Your task to perform on an android device: manage bookmarks in the chrome app Image 0: 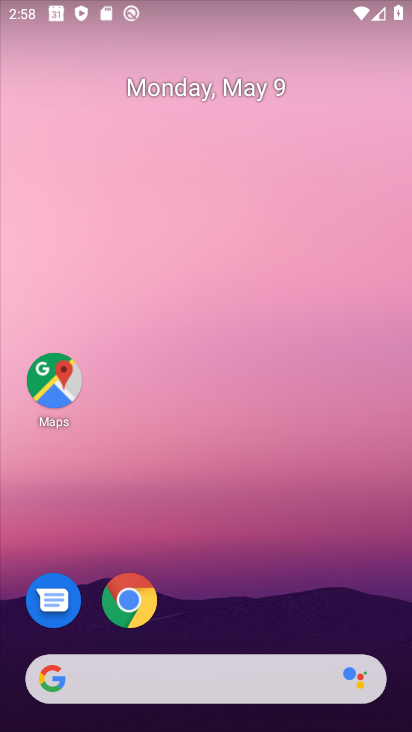
Step 0: drag from (201, 728) to (173, 114)
Your task to perform on an android device: manage bookmarks in the chrome app Image 1: 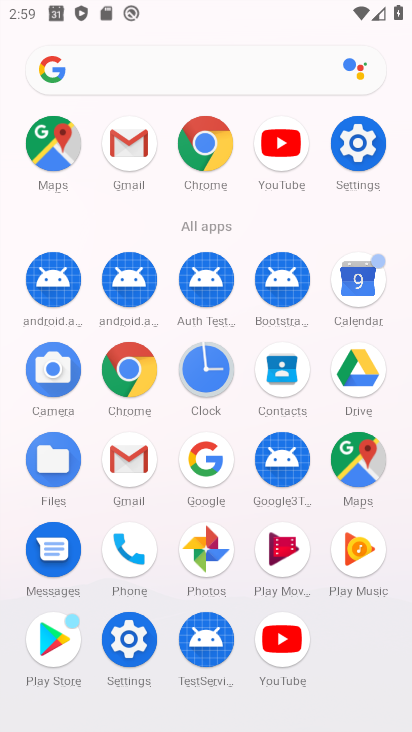
Step 1: click (129, 367)
Your task to perform on an android device: manage bookmarks in the chrome app Image 2: 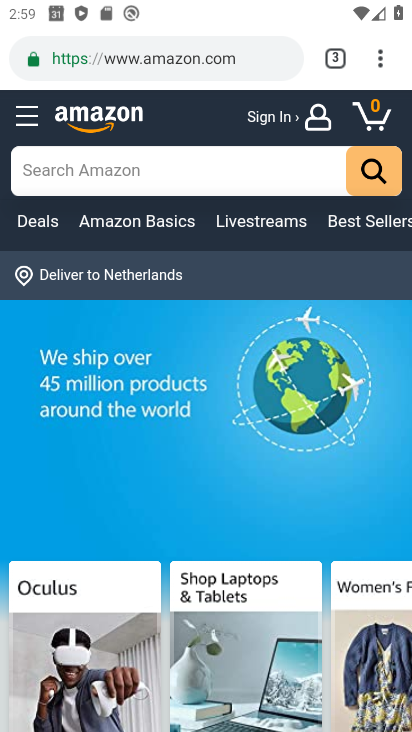
Step 2: drag from (382, 67) to (173, 285)
Your task to perform on an android device: manage bookmarks in the chrome app Image 3: 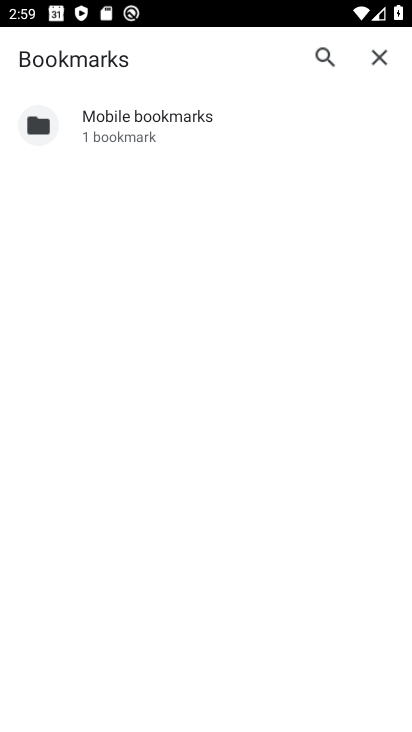
Step 3: click (141, 109)
Your task to perform on an android device: manage bookmarks in the chrome app Image 4: 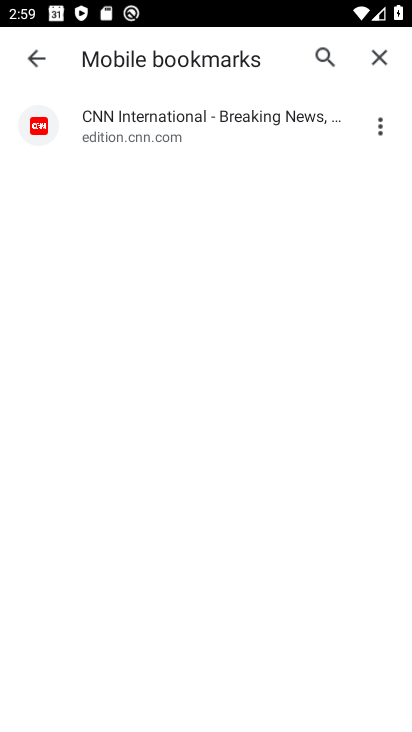
Step 4: click (380, 128)
Your task to perform on an android device: manage bookmarks in the chrome app Image 5: 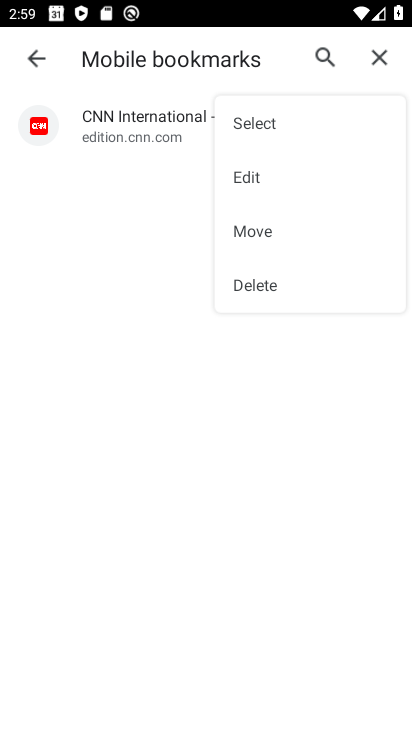
Step 5: click (248, 175)
Your task to perform on an android device: manage bookmarks in the chrome app Image 6: 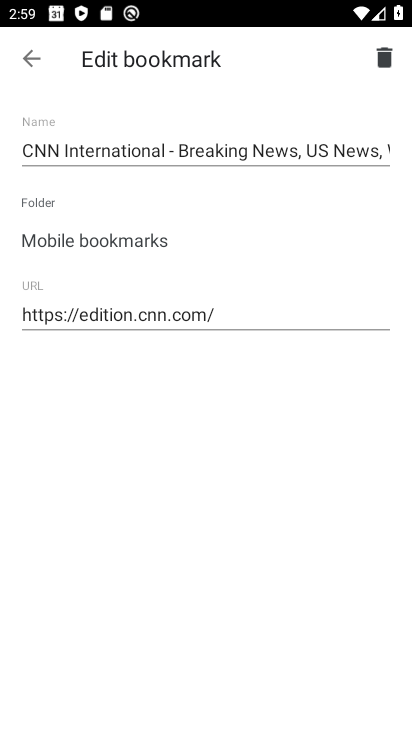
Step 6: click (200, 152)
Your task to perform on an android device: manage bookmarks in the chrome app Image 7: 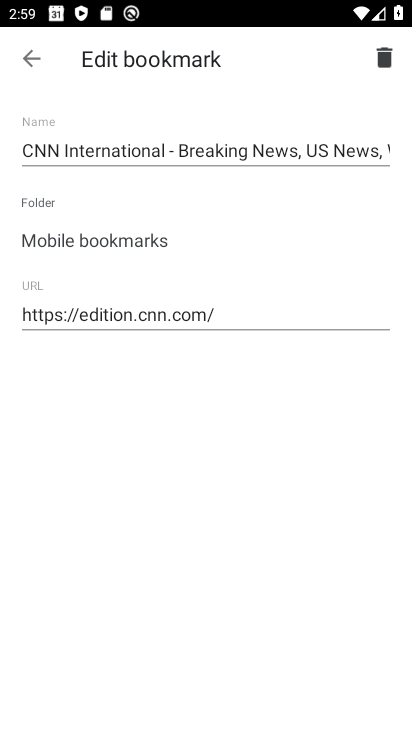
Step 7: click (200, 152)
Your task to perform on an android device: manage bookmarks in the chrome app Image 8: 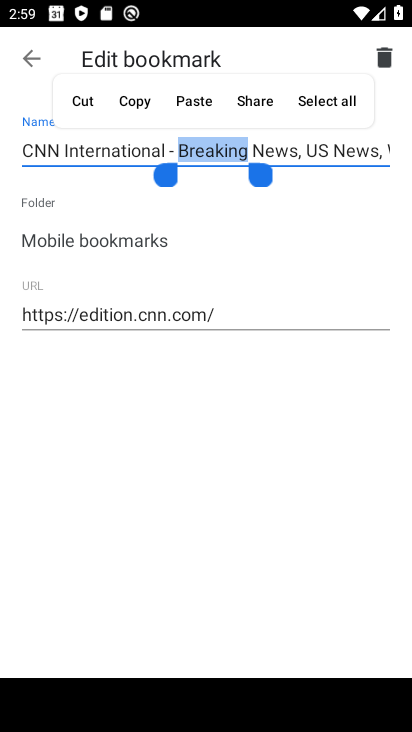
Step 8: drag from (258, 173) to (411, 181)
Your task to perform on an android device: manage bookmarks in the chrome app Image 9: 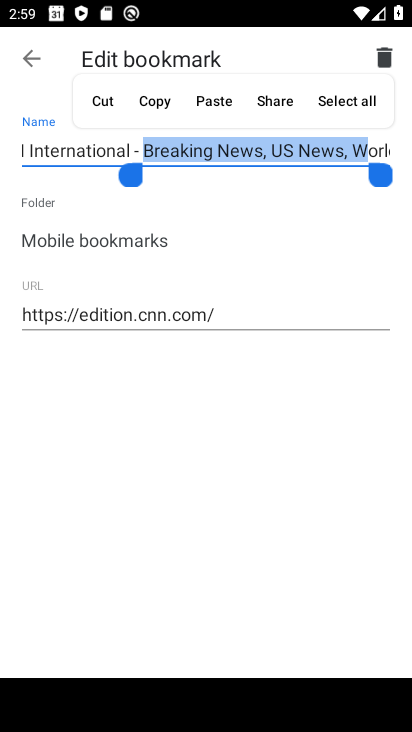
Step 9: click (375, 172)
Your task to perform on an android device: manage bookmarks in the chrome app Image 10: 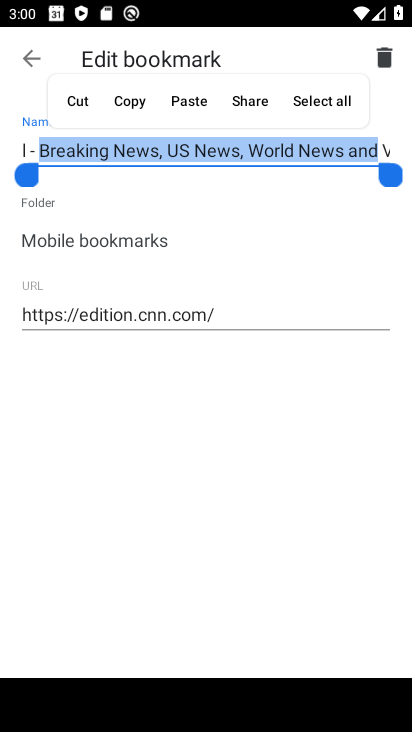
Step 10: click (385, 174)
Your task to perform on an android device: manage bookmarks in the chrome app Image 11: 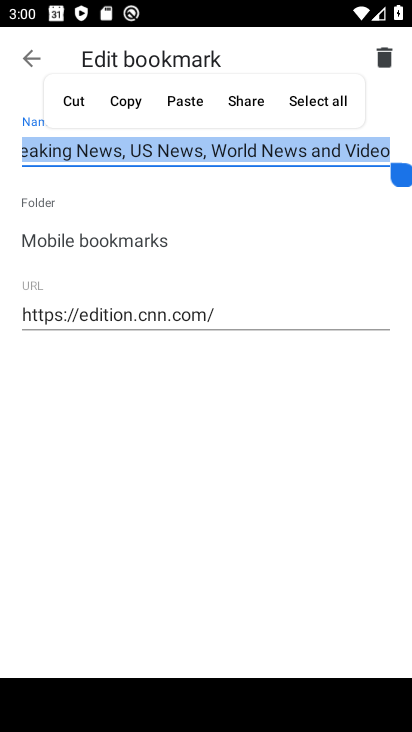
Step 11: click (73, 102)
Your task to perform on an android device: manage bookmarks in the chrome app Image 12: 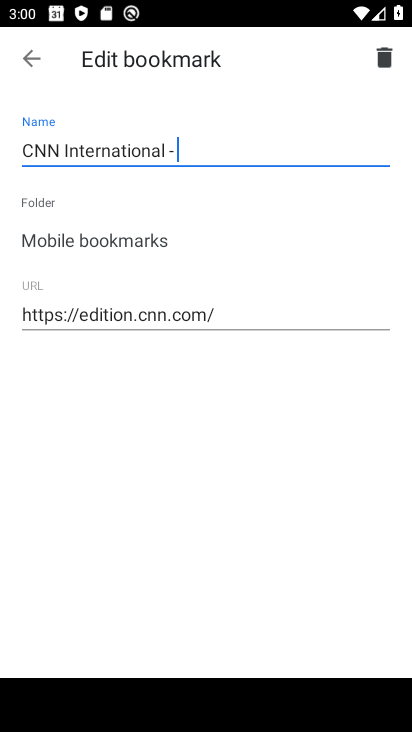
Step 12: type "ntr"
Your task to perform on an android device: manage bookmarks in the chrome app Image 13: 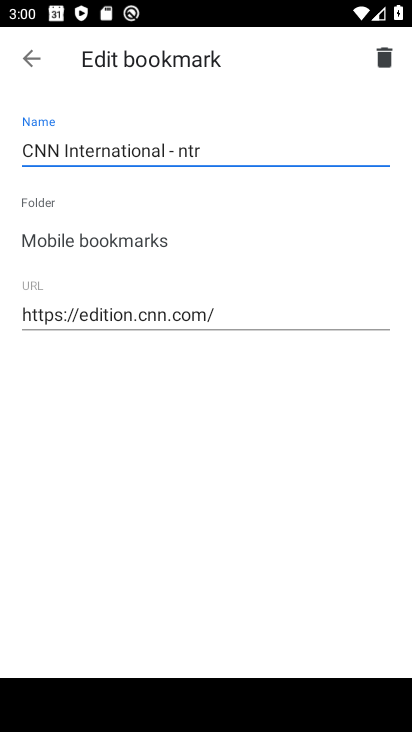
Step 13: click (34, 59)
Your task to perform on an android device: manage bookmarks in the chrome app Image 14: 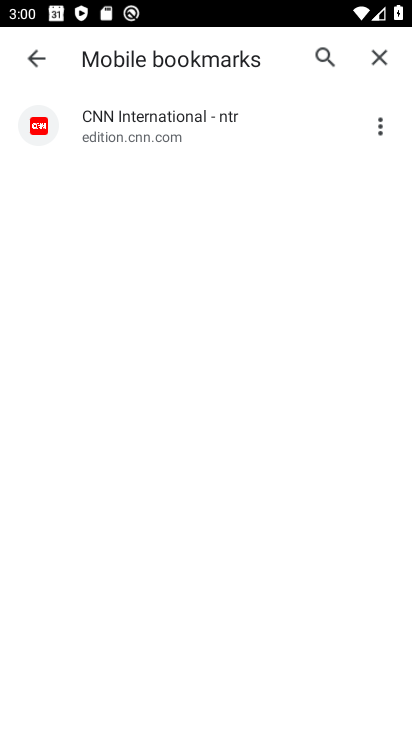
Step 14: task complete